Your task to perform on an android device: open the mobile data screen to see how much data has been used Image 0: 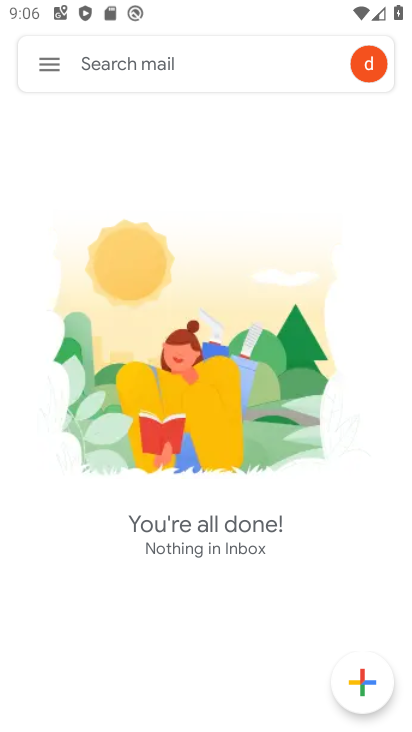
Step 0: press home button
Your task to perform on an android device: open the mobile data screen to see how much data has been used Image 1: 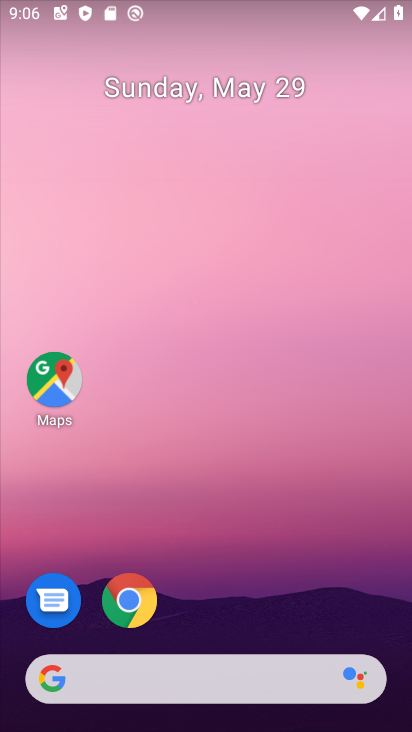
Step 1: drag from (219, 728) to (156, 26)
Your task to perform on an android device: open the mobile data screen to see how much data has been used Image 2: 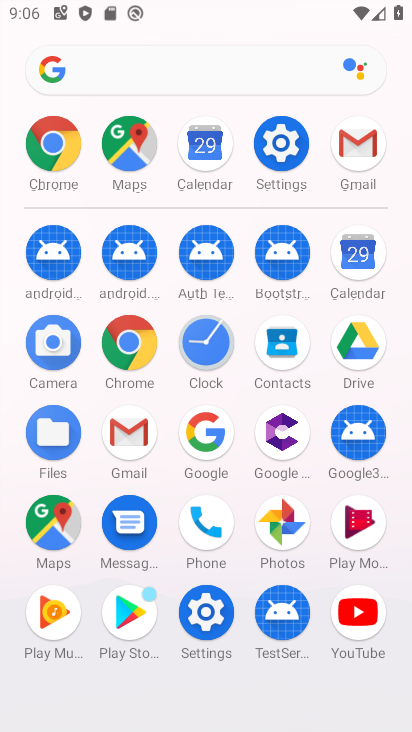
Step 2: click (271, 139)
Your task to perform on an android device: open the mobile data screen to see how much data has been used Image 3: 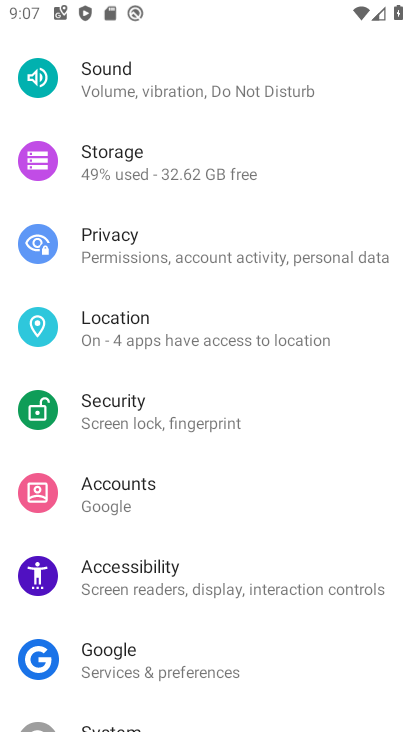
Step 3: drag from (153, 67) to (179, 499)
Your task to perform on an android device: open the mobile data screen to see how much data has been used Image 4: 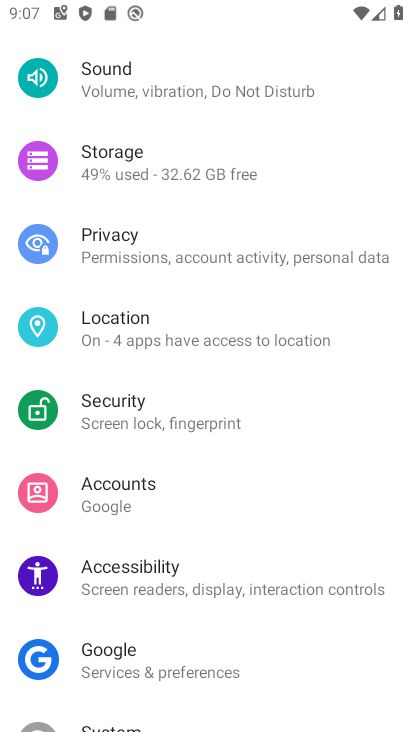
Step 4: drag from (270, 88) to (298, 512)
Your task to perform on an android device: open the mobile data screen to see how much data has been used Image 5: 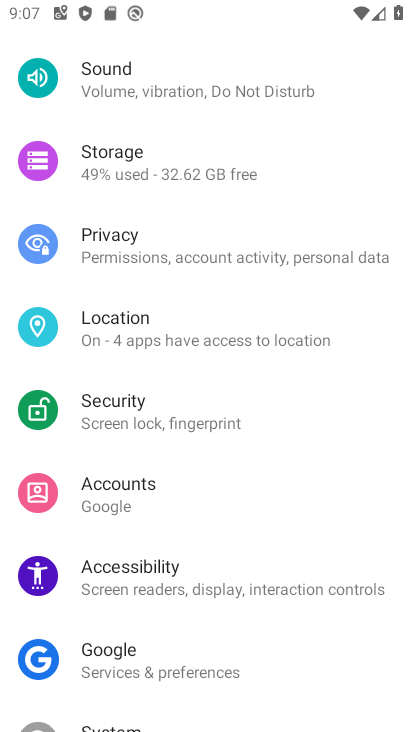
Step 5: drag from (240, 83) to (249, 532)
Your task to perform on an android device: open the mobile data screen to see how much data has been used Image 6: 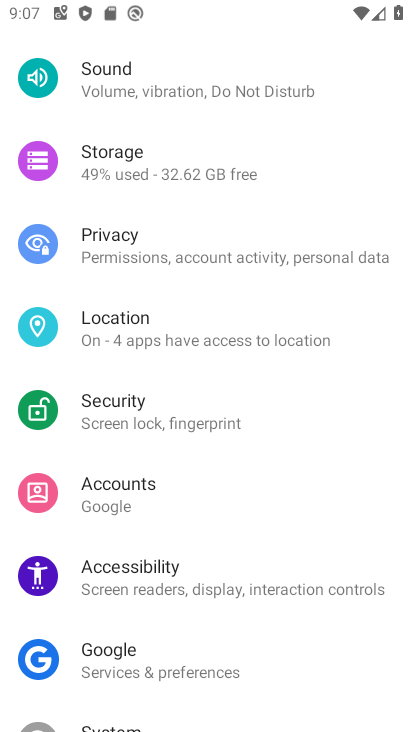
Step 6: drag from (186, 111) to (174, 472)
Your task to perform on an android device: open the mobile data screen to see how much data has been used Image 7: 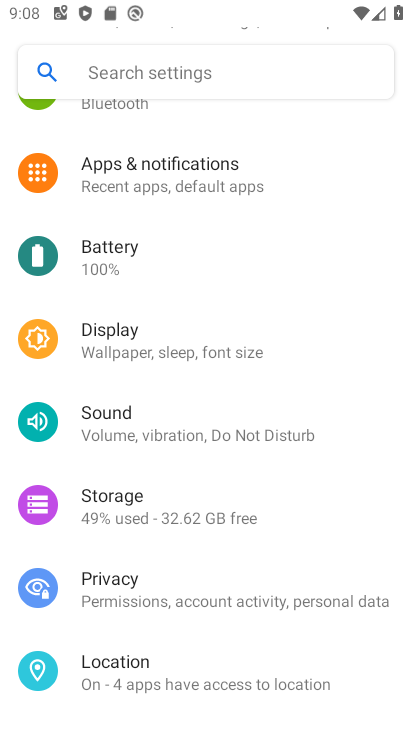
Step 7: drag from (190, 160) to (193, 565)
Your task to perform on an android device: open the mobile data screen to see how much data has been used Image 8: 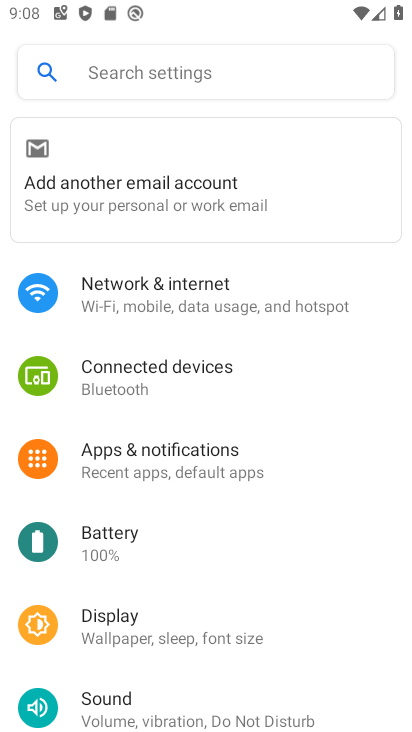
Step 8: click (173, 300)
Your task to perform on an android device: open the mobile data screen to see how much data has been used Image 9: 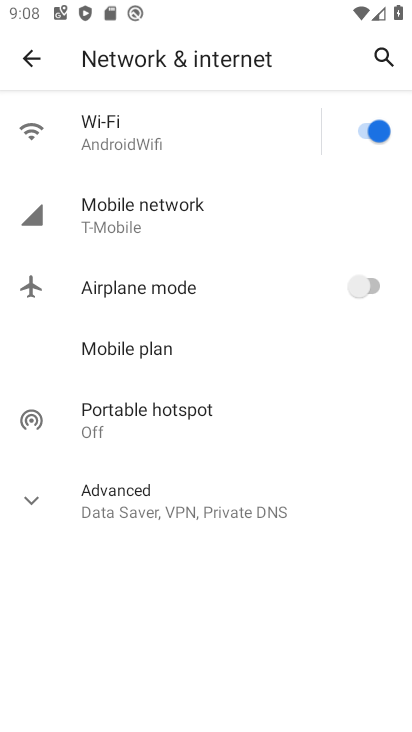
Step 9: click (130, 220)
Your task to perform on an android device: open the mobile data screen to see how much data has been used Image 10: 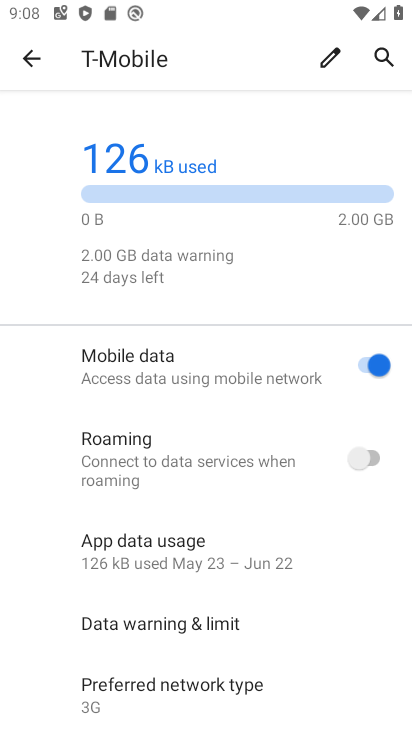
Step 10: click (164, 554)
Your task to perform on an android device: open the mobile data screen to see how much data has been used Image 11: 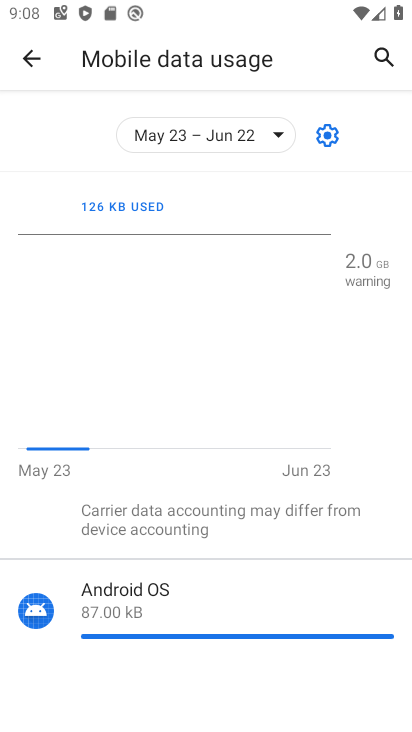
Step 11: task complete